Your task to perform on an android device: toggle show notifications on the lock screen Image 0: 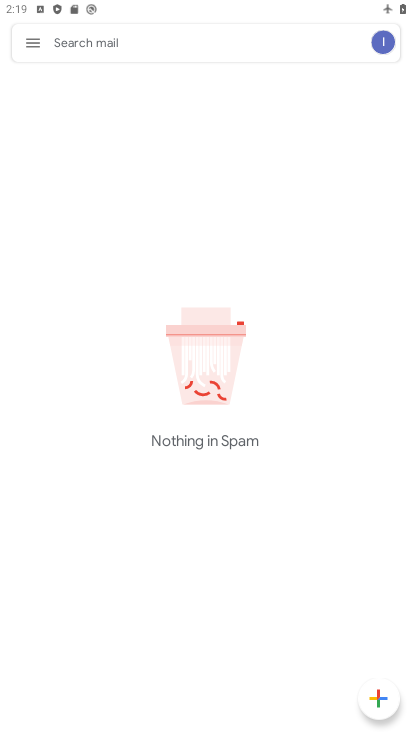
Step 0: press back button
Your task to perform on an android device: toggle show notifications on the lock screen Image 1: 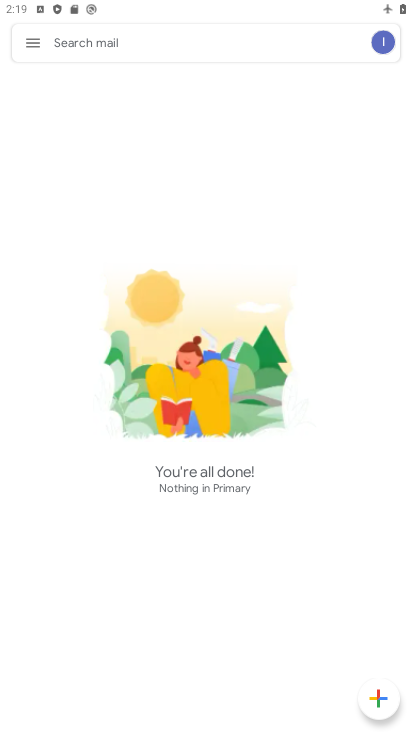
Step 1: press back button
Your task to perform on an android device: toggle show notifications on the lock screen Image 2: 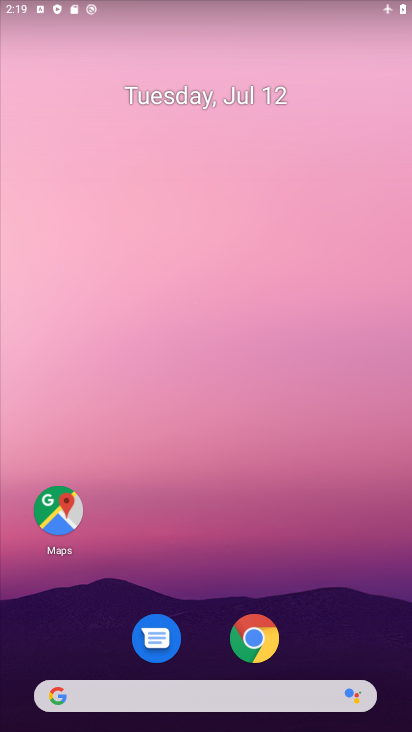
Step 2: drag from (73, 650) to (208, 15)
Your task to perform on an android device: toggle show notifications on the lock screen Image 3: 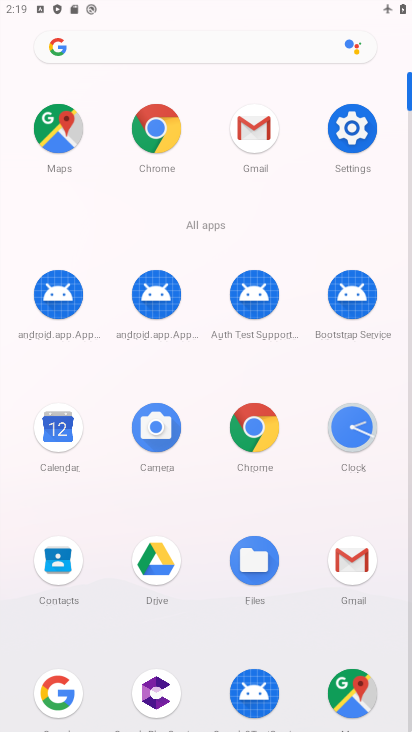
Step 3: click (375, 141)
Your task to perform on an android device: toggle show notifications on the lock screen Image 4: 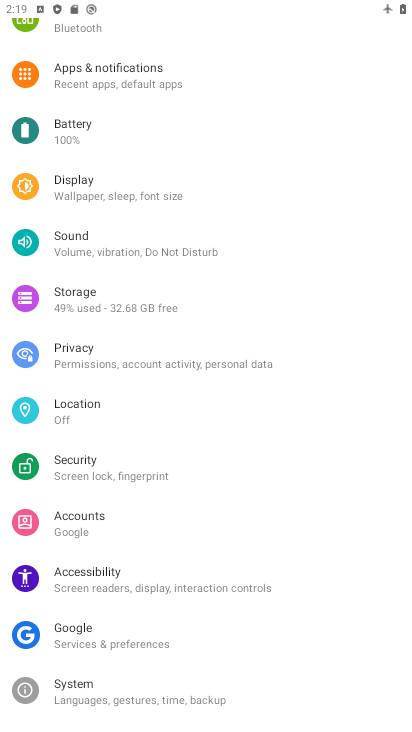
Step 4: click (169, 87)
Your task to perform on an android device: toggle show notifications on the lock screen Image 5: 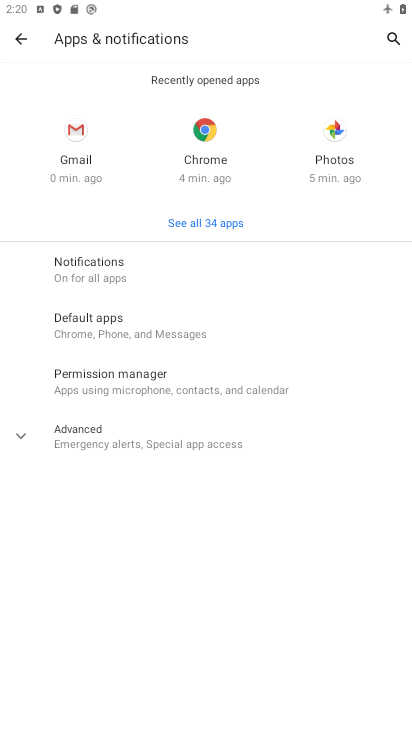
Step 5: click (125, 263)
Your task to perform on an android device: toggle show notifications on the lock screen Image 6: 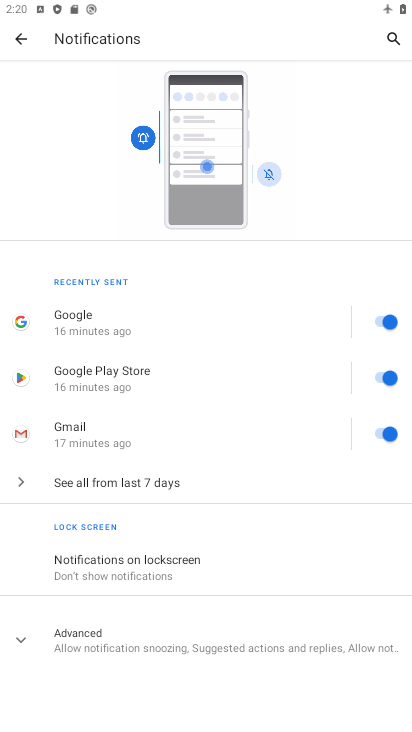
Step 6: click (218, 566)
Your task to perform on an android device: toggle show notifications on the lock screen Image 7: 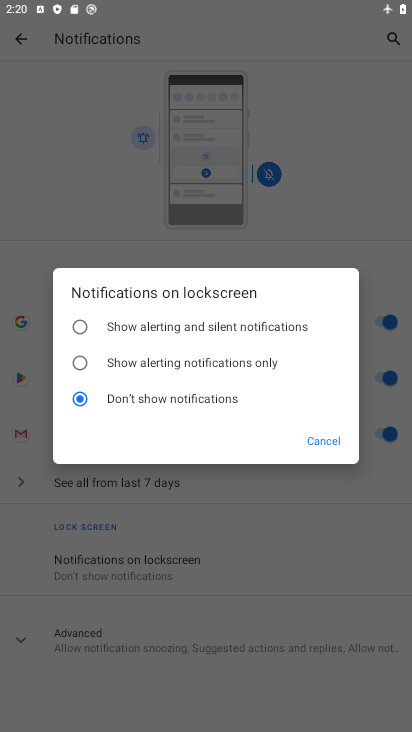
Step 7: click (92, 324)
Your task to perform on an android device: toggle show notifications on the lock screen Image 8: 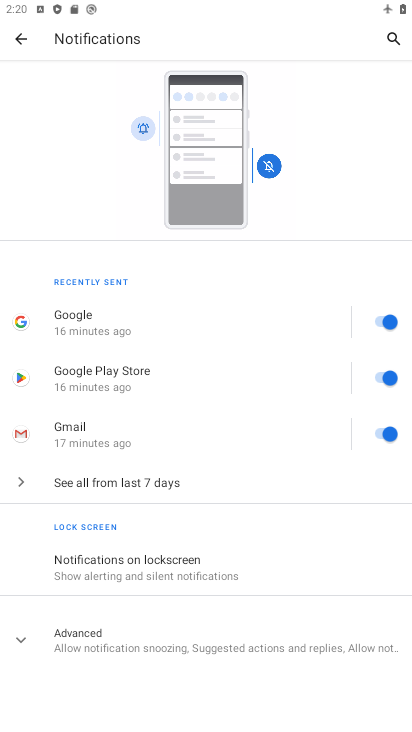
Step 8: task complete